Your task to perform on an android device: Go to settings Image 0: 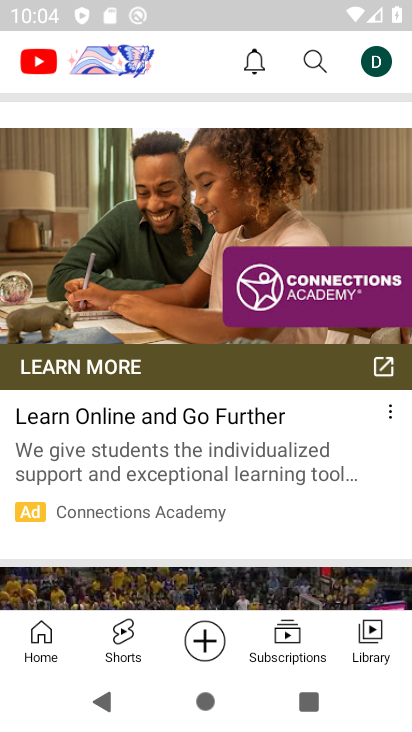
Step 0: press home button
Your task to perform on an android device: Go to settings Image 1: 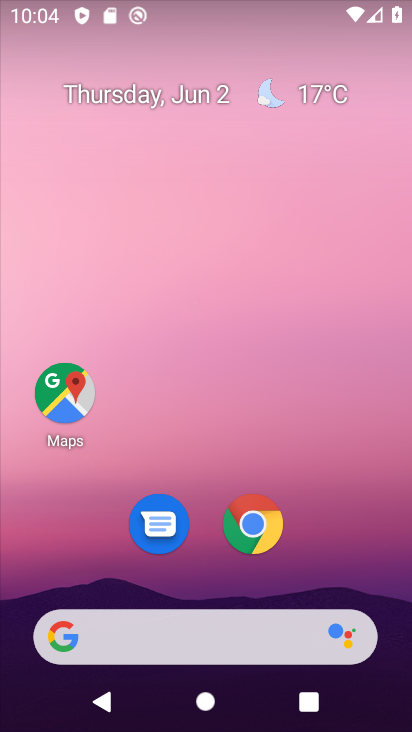
Step 1: drag from (303, 516) to (308, 1)
Your task to perform on an android device: Go to settings Image 2: 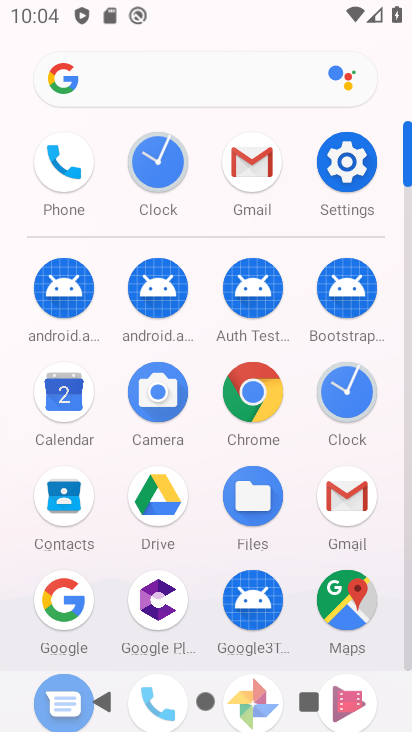
Step 2: click (342, 166)
Your task to perform on an android device: Go to settings Image 3: 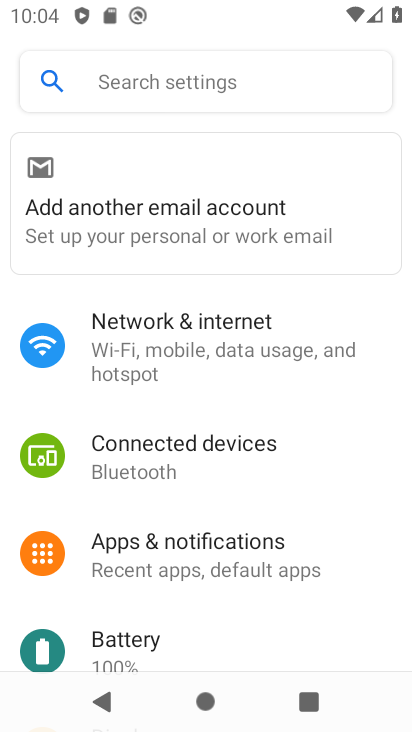
Step 3: task complete